Your task to perform on an android device: turn on location history Image 0: 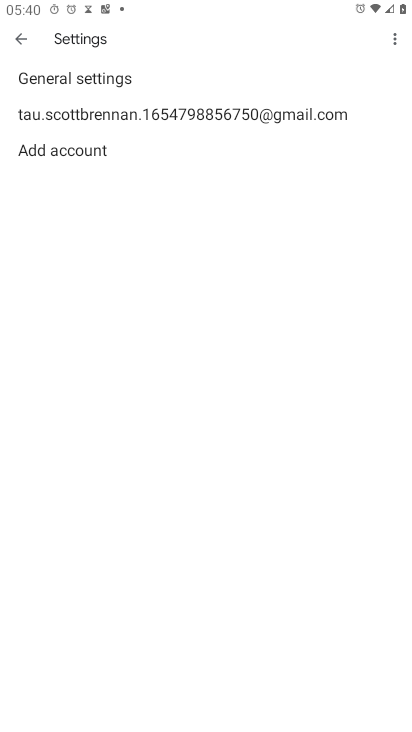
Step 0: press home button
Your task to perform on an android device: turn on location history Image 1: 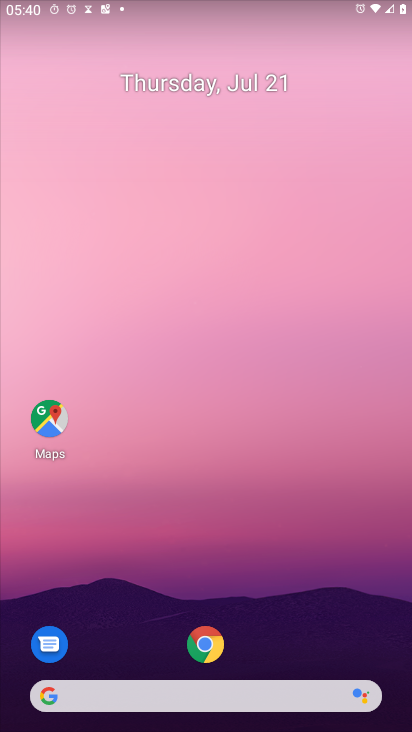
Step 1: drag from (316, 609) to (301, 147)
Your task to perform on an android device: turn on location history Image 2: 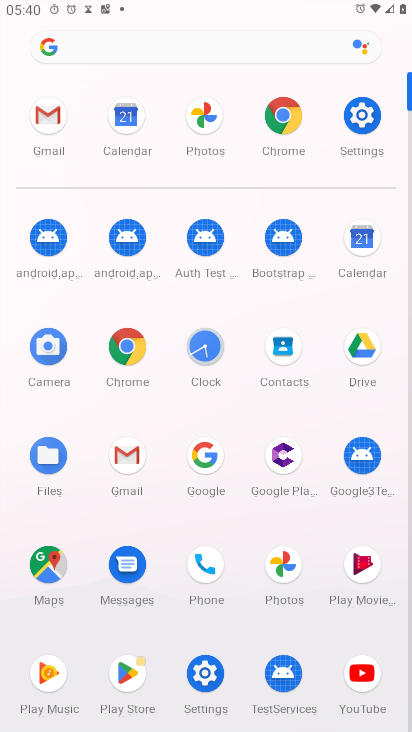
Step 2: click (363, 120)
Your task to perform on an android device: turn on location history Image 3: 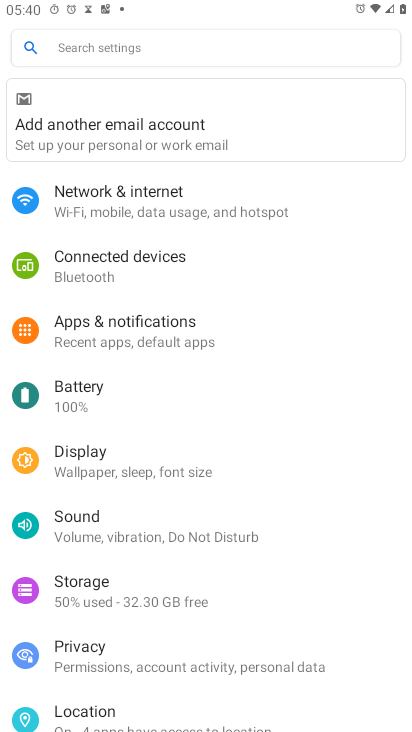
Step 3: click (86, 708)
Your task to perform on an android device: turn on location history Image 4: 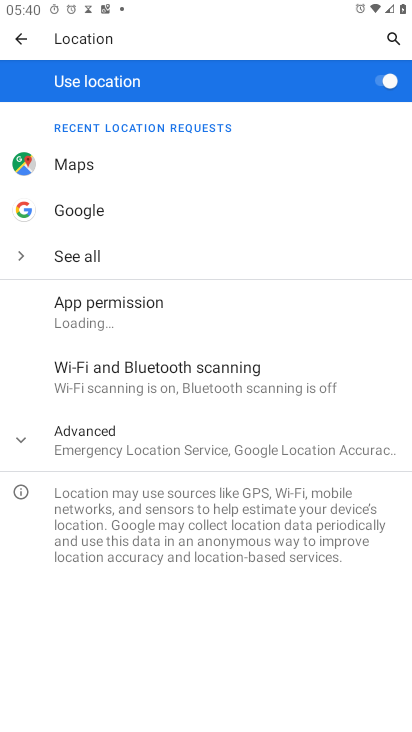
Step 4: click (24, 441)
Your task to perform on an android device: turn on location history Image 5: 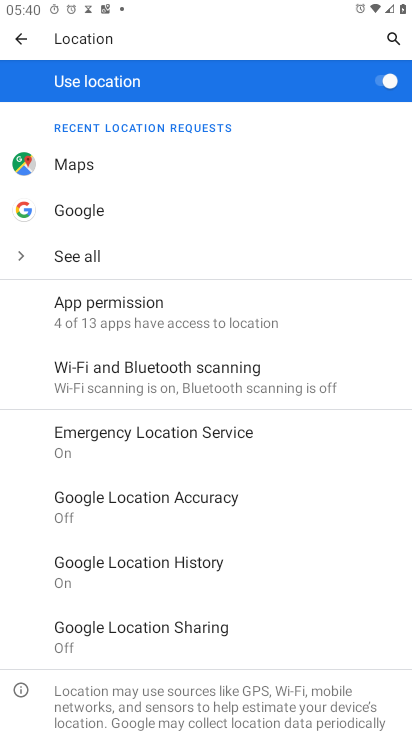
Step 5: click (145, 570)
Your task to perform on an android device: turn on location history Image 6: 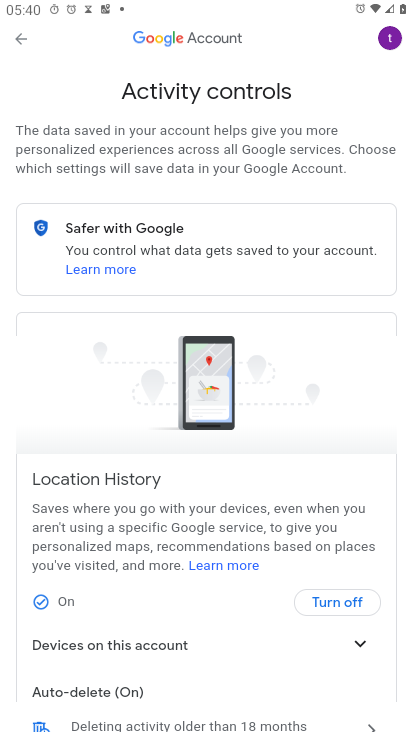
Step 6: click (19, 41)
Your task to perform on an android device: turn on location history Image 7: 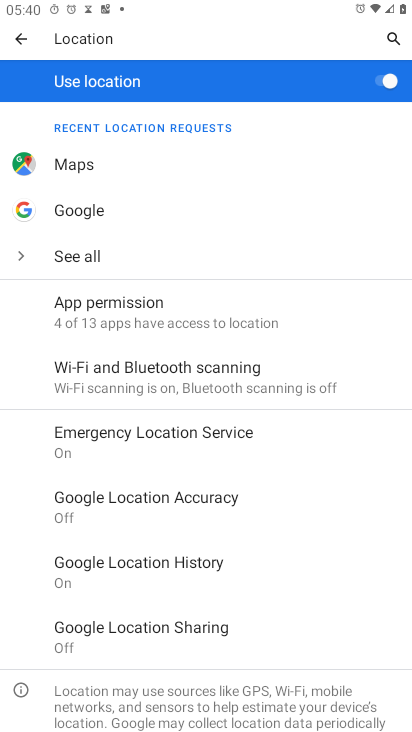
Step 7: click (195, 572)
Your task to perform on an android device: turn on location history Image 8: 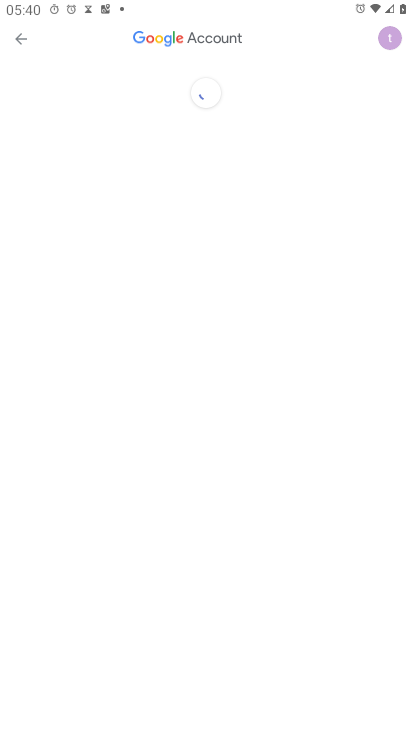
Step 8: task complete